Your task to perform on an android device: Search for sushi restaurants on Maps Image 0: 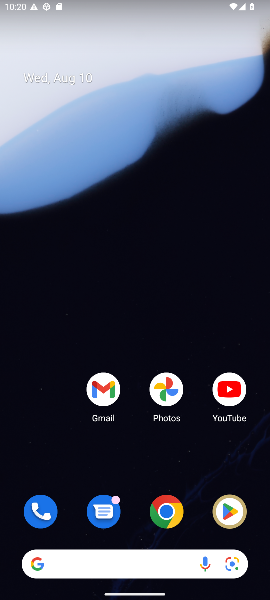
Step 0: drag from (135, 450) to (161, 63)
Your task to perform on an android device: Search for sushi restaurants on Maps Image 1: 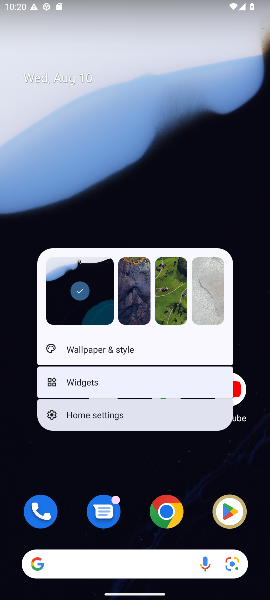
Step 1: click (134, 187)
Your task to perform on an android device: Search for sushi restaurants on Maps Image 2: 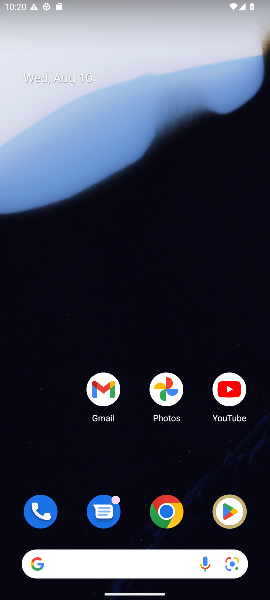
Step 2: drag from (138, 533) to (159, 214)
Your task to perform on an android device: Search for sushi restaurants on Maps Image 3: 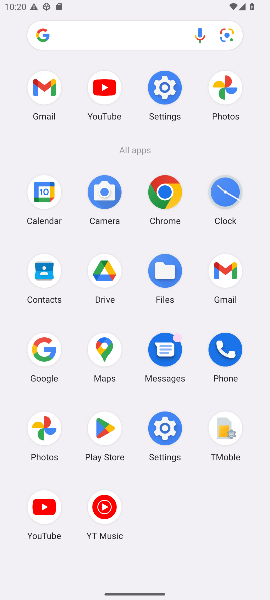
Step 3: click (94, 361)
Your task to perform on an android device: Search for sushi restaurants on Maps Image 4: 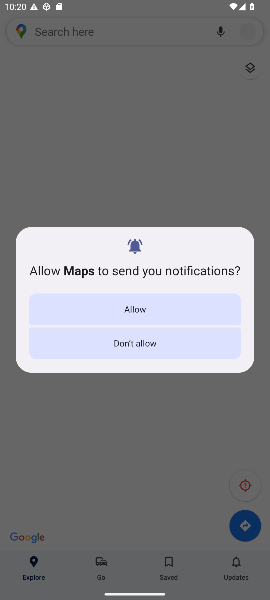
Step 4: click (115, 310)
Your task to perform on an android device: Search for sushi restaurants on Maps Image 5: 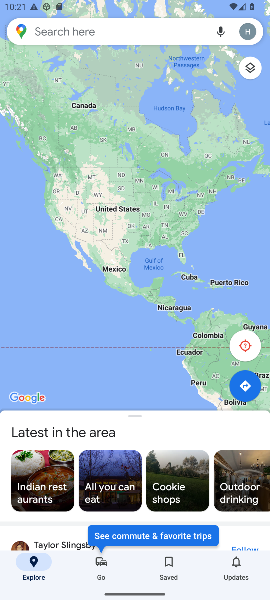
Step 5: click (121, 34)
Your task to perform on an android device: Search for sushi restaurants on Maps Image 6: 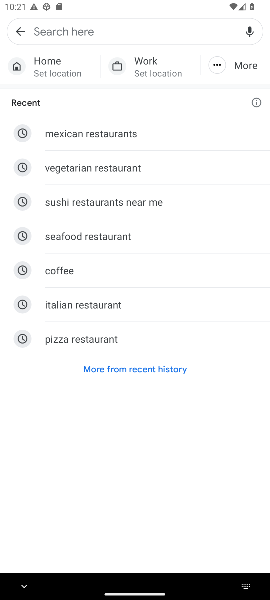
Step 6: click (121, 208)
Your task to perform on an android device: Search for sushi restaurants on Maps Image 7: 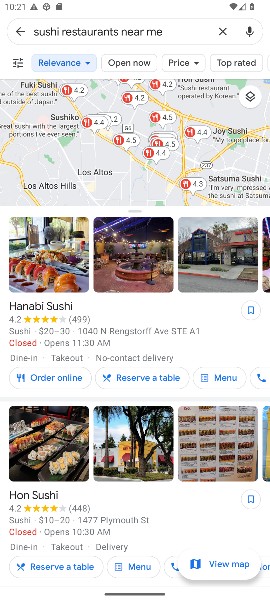
Step 7: task complete